Your task to perform on an android device: Open maps Image 0: 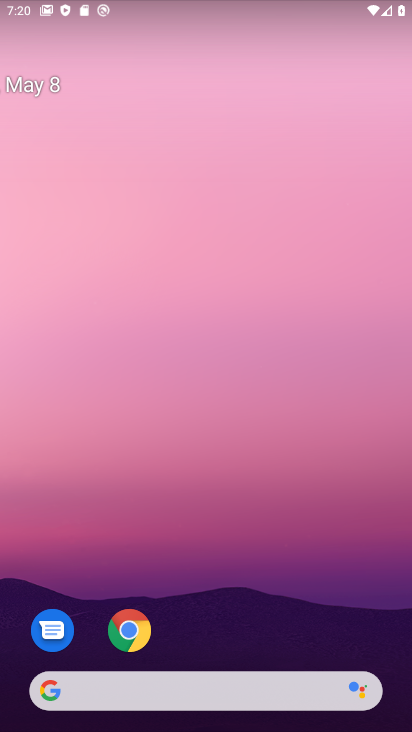
Step 0: drag from (197, 611) to (175, 124)
Your task to perform on an android device: Open maps Image 1: 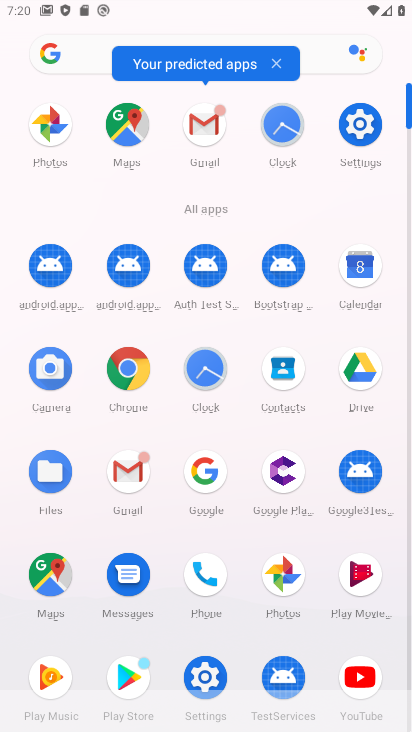
Step 1: click (133, 122)
Your task to perform on an android device: Open maps Image 2: 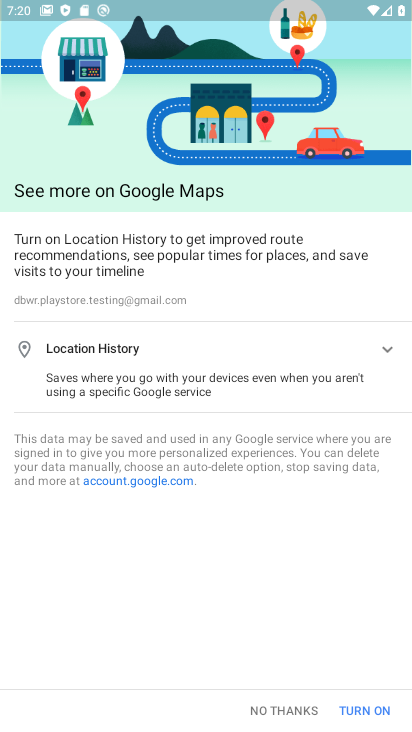
Step 2: click (271, 713)
Your task to perform on an android device: Open maps Image 3: 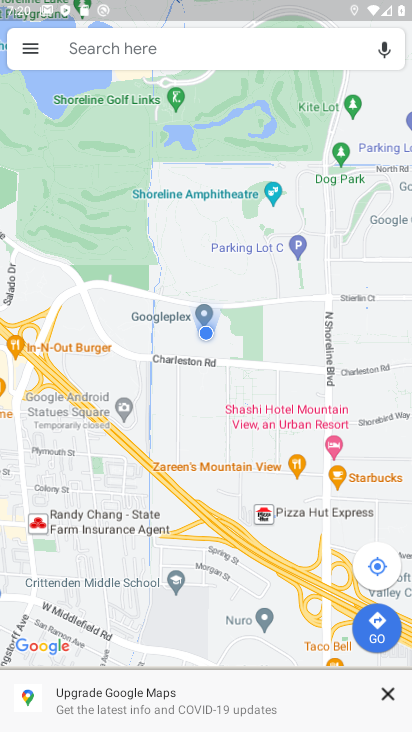
Step 3: task complete